Your task to perform on an android device: install app "Life360: Find Family & Friends" Image 0: 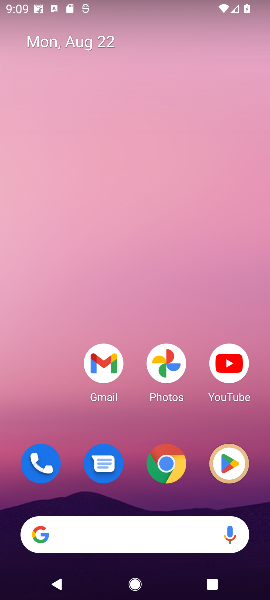
Step 0: click (238, 459)
Your task to perform on an android device: install app "Life360: Find Family & Friends" Image 1: 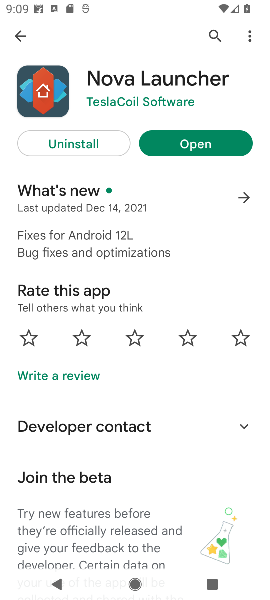
Step 1: click (13, 25)
Your task to perform on an android device: install app "Life360: Find Family & Friends" Image 2: 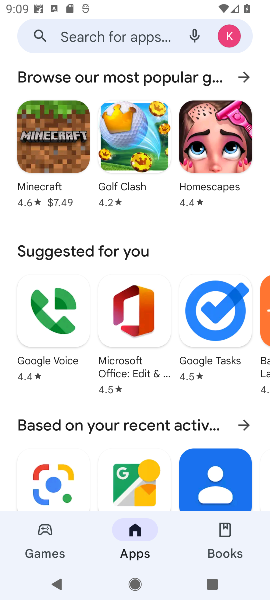
Step 2: click (120, 38)
Your task to perform on an android device: install app "Life360: Find Family & Friends" Image 3: 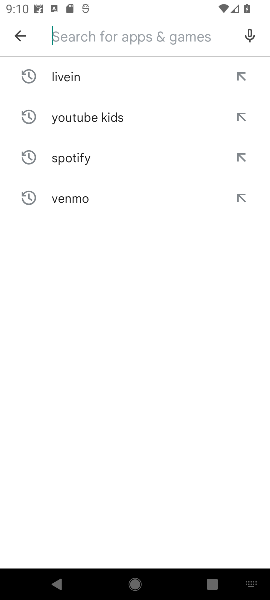
Step 3: type "Life360: Find Family & Friends"
Your task to perform on an android device: install app "Life360: Find Family & Friends" Image 4: 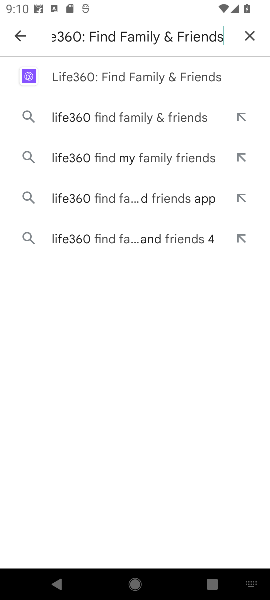
Step 4: click (124, 82)
Your task to perform on an android device: install app "Life360: Find Family & Friends" Image 5: 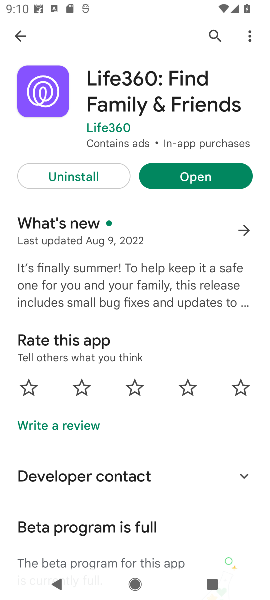
Step 5: click (181, 177)
Your task to perform on an android device: install app "Life360: Find Family & Friends" Image 6: 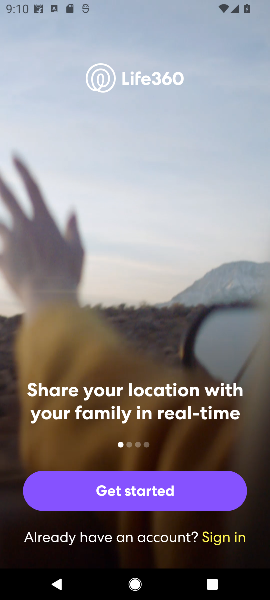
Step 6: task complete